Your task to perform on an android device: Open calendar and show me the third week of next month Image 0: 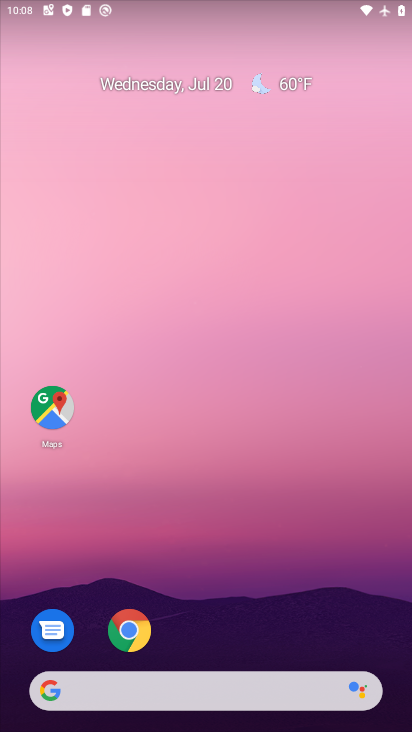
Step 0: drag from (273, 655) to (265, 249)
Your task to perform on an android device: Open calendar and show me the third week of next month Image 1: 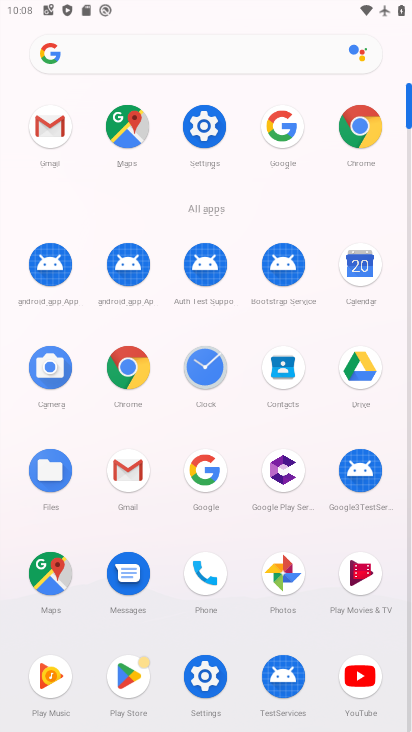
Step 1: click (358, 275)
Your task to perform on an android device: Open calendar and show me the third week of next month Image 2: 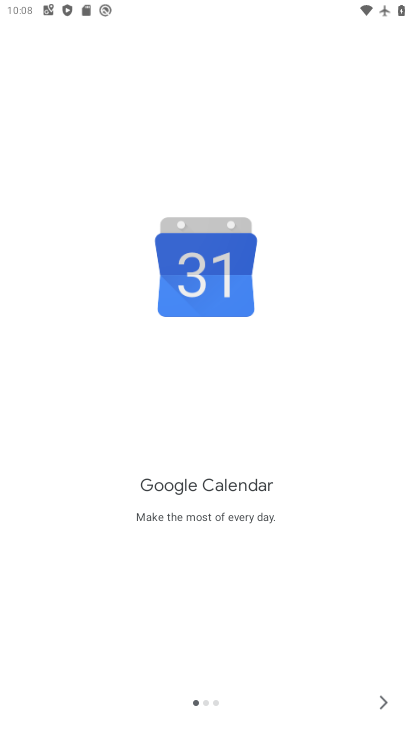
Step 2: click (373, 708)
Your task to perform on an android device: Open calendar and show me the third week of next month Image 3: 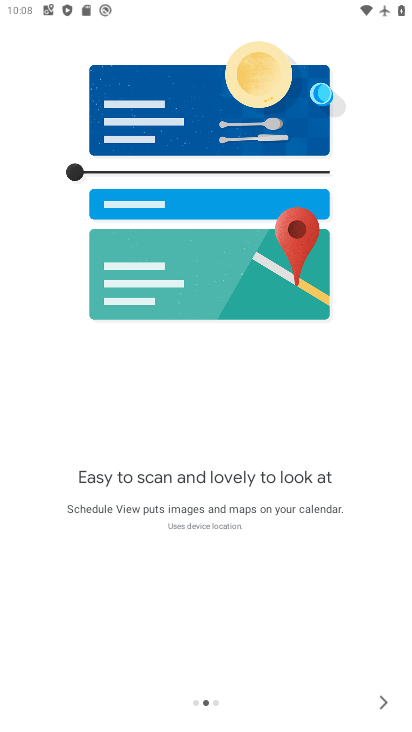
Step 3: click (373, 708)
Your task to perform on an android device: Open calendar and show me the third week of next month Image 4: 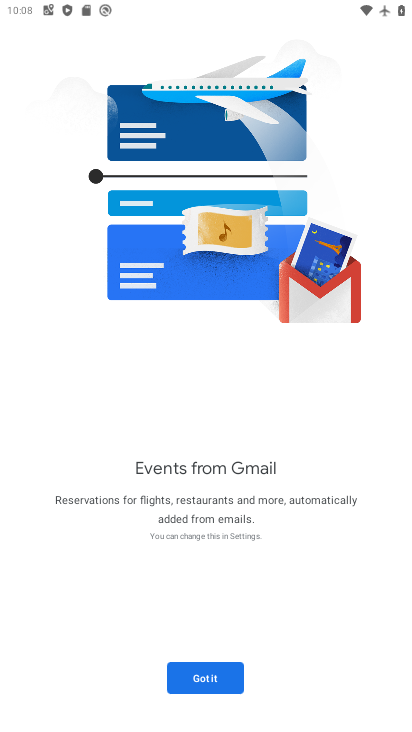
Step 4: click (223, 675)
Your task to perform on an android device: Open calendar and show me the third week of next month Image 5: 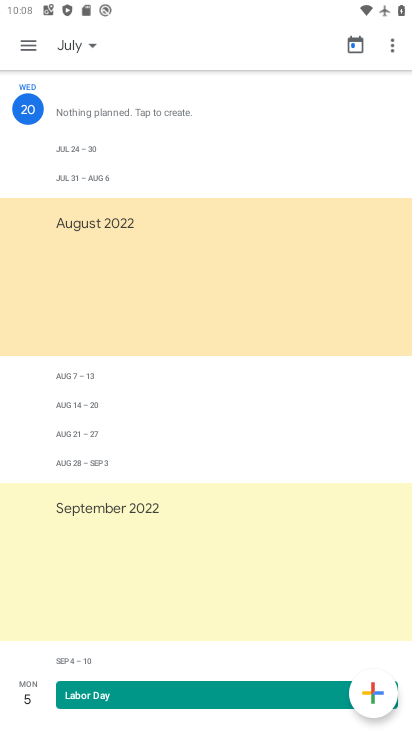
Step 5: click (84, 43)
Your task to perform on an android device: Open calendar and show me the third week of next month Image 6: 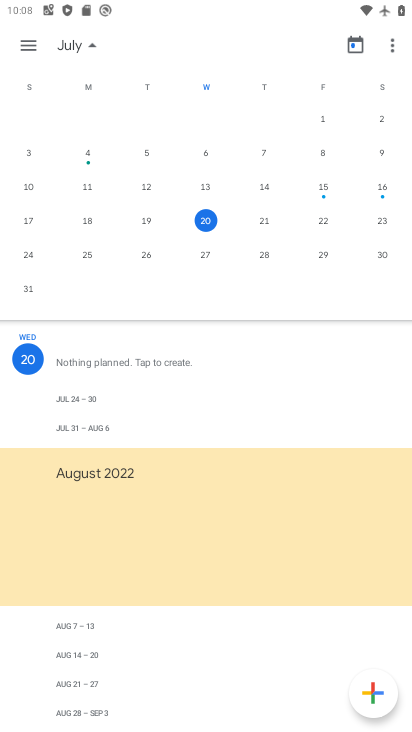
Step 6: drag from (342, 232) to (11, 184)
Your task to perform on an android device: Open calendar and show me the third week of next month Image 7: 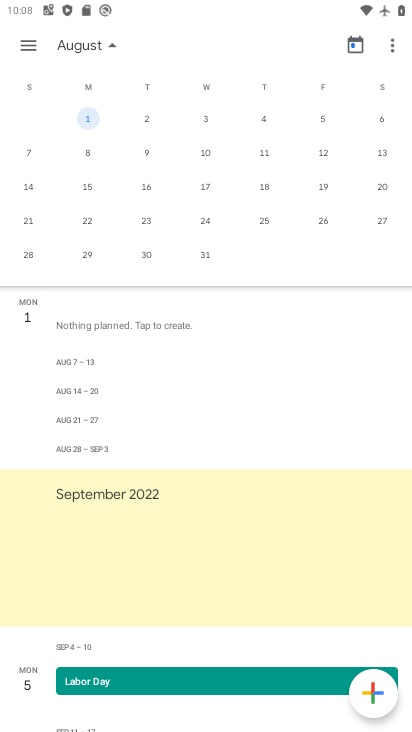
Step 7: click (26, 191)
Your task to perform on an android device: Open calendar and show me the third week of next month Image 8: 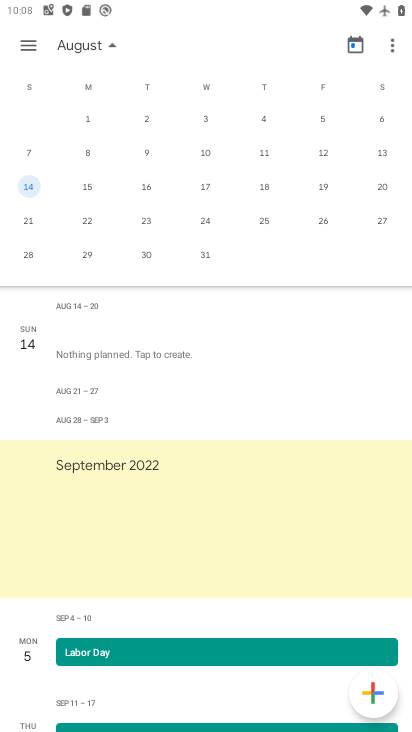
Step 8: task complete